Your task to perform on an android device: Show me popular videos on Youtube Image 0: 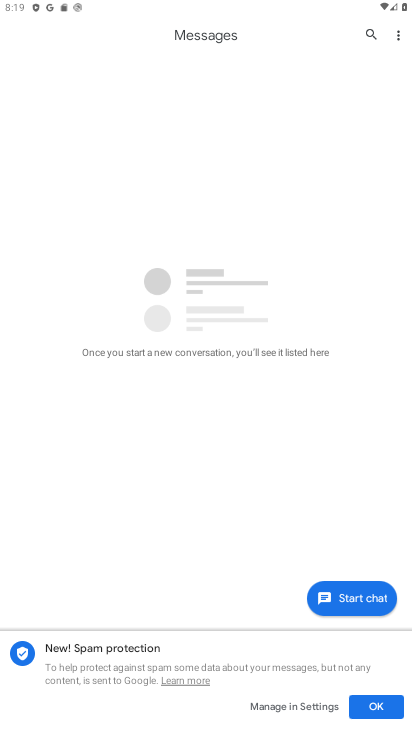
Step 0: press home button
Your task to perform on an android device: Show me popular videos on Youtube Image 1: 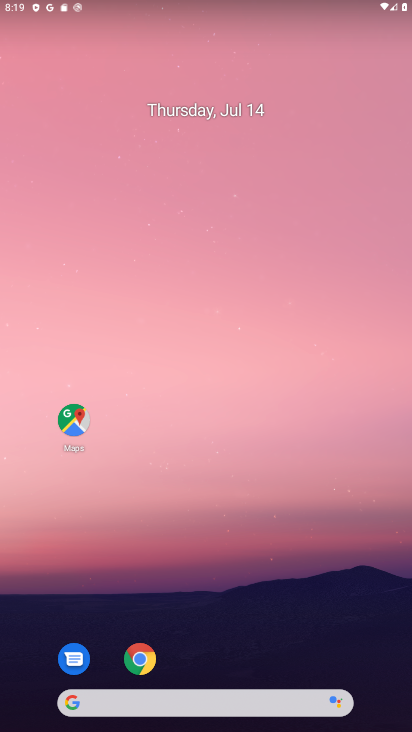
Step 1: drag from (180, 550) to (180, 123)
Your task to perform on an android device: Show me popular videos on Youtube Image 2: 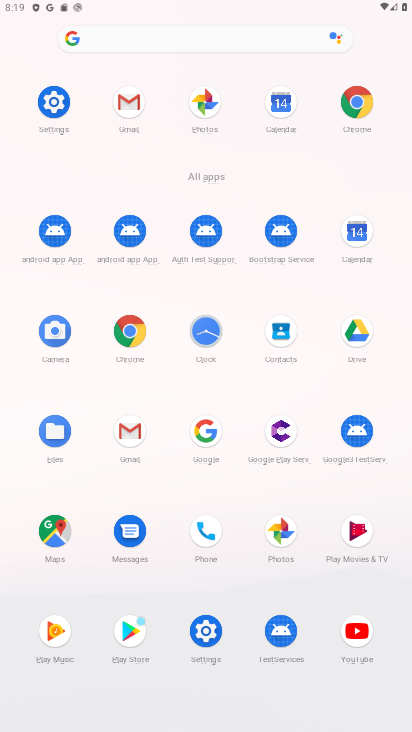
Step 2: click (353, 656)
Your task to perform on an android device: Show me popular videos on Youtube Image 3: 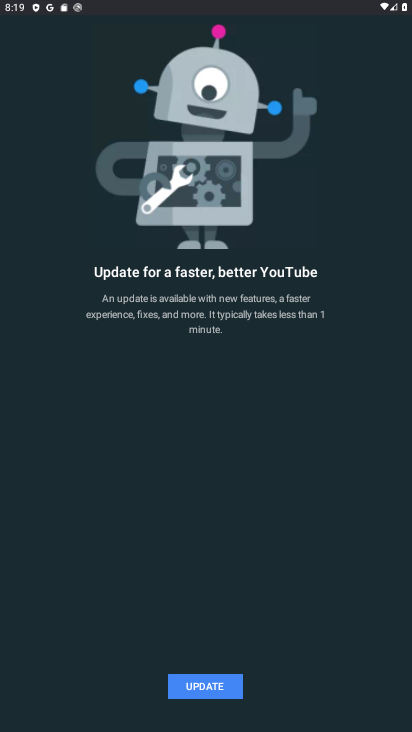
Step 3: click (211, 685)
Your task to perform on an android device: Show me popular videos on Youtube Image 4: 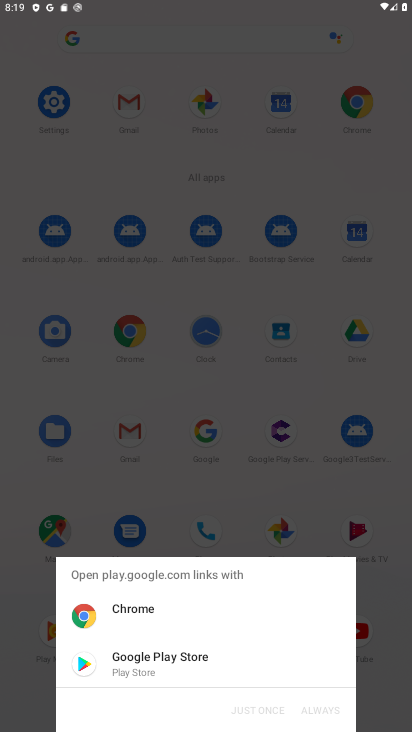
Step 4: click (150, 669)
Your task to perform on an android device: Show me popular videos on Youtube Image 5: 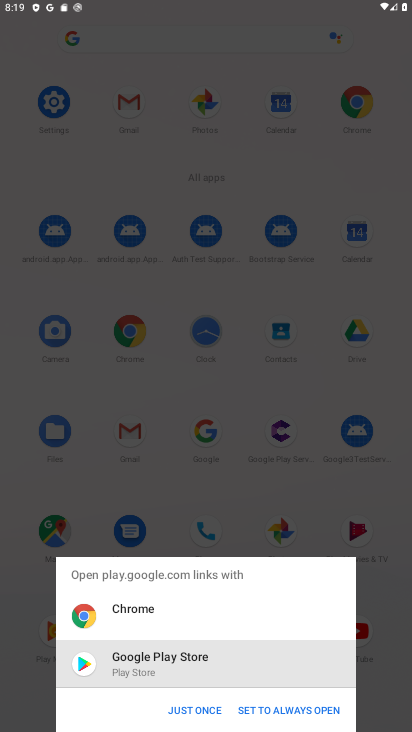
Step 5: click (318, 718)
Your task to perform on an android device: Show me popular videos on Youtube Image 6: 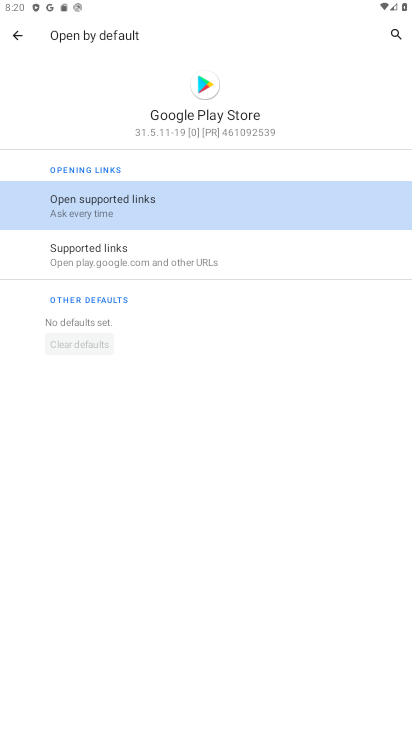
Step 6: click (135, 199)
Your task to perform on an android device: Show me popular videos on Youtube Image 7: 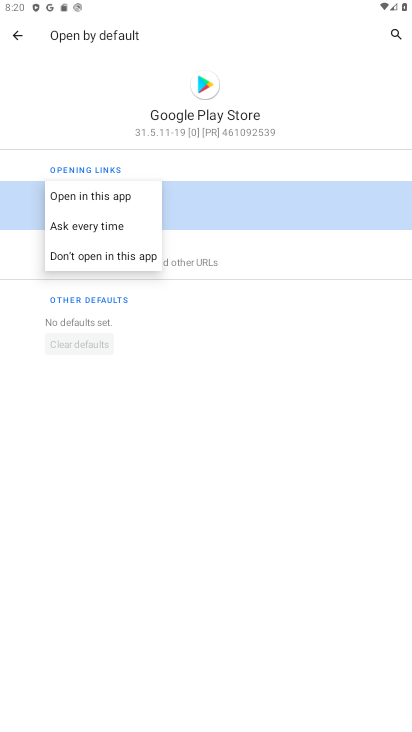
Step 7: click (84, 250)
Your task to perform on an android device: Show me popular videos on Youtube Image 8: 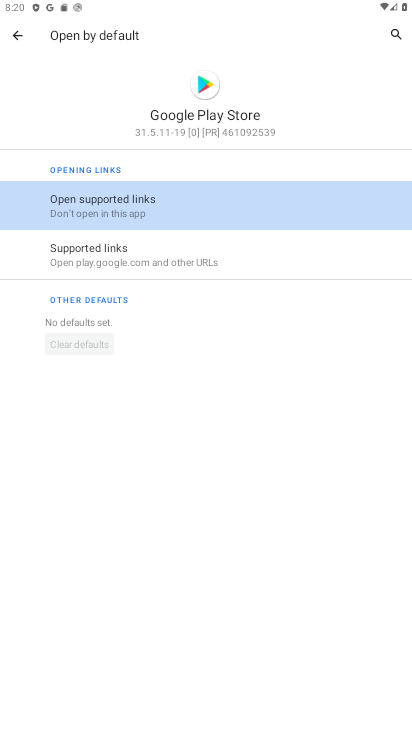
Step 8: click (15, 32)
Your task to perform on an android device: Show me popular videos on Youtube Image 9: 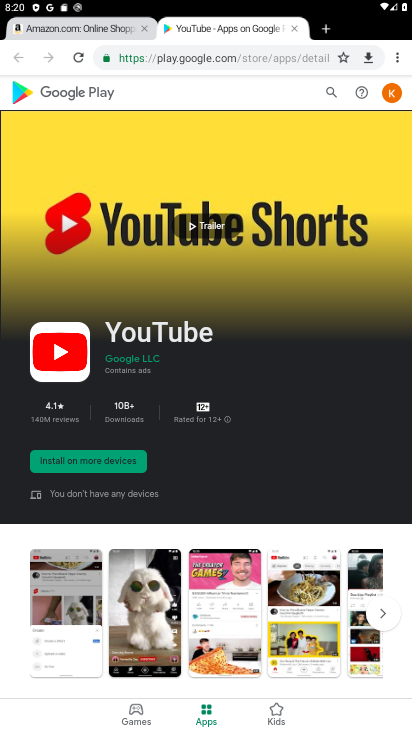
Step 9: task complete